Your task to perform on an android device: Open Amazon Image 0: 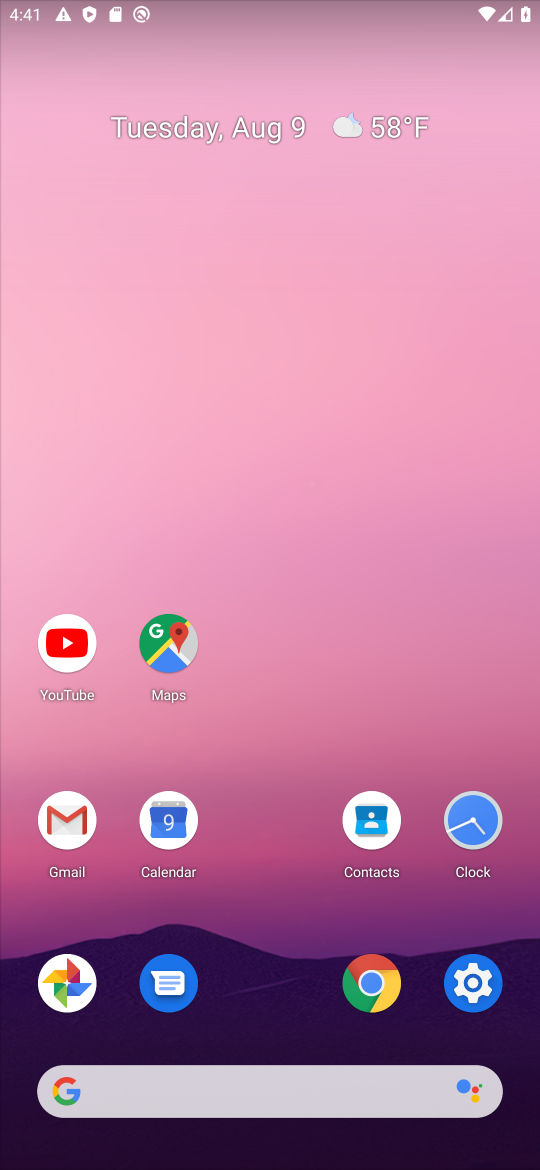
Step 0: press home button
Your task to perform on an android device: Open Amazon Image 1: 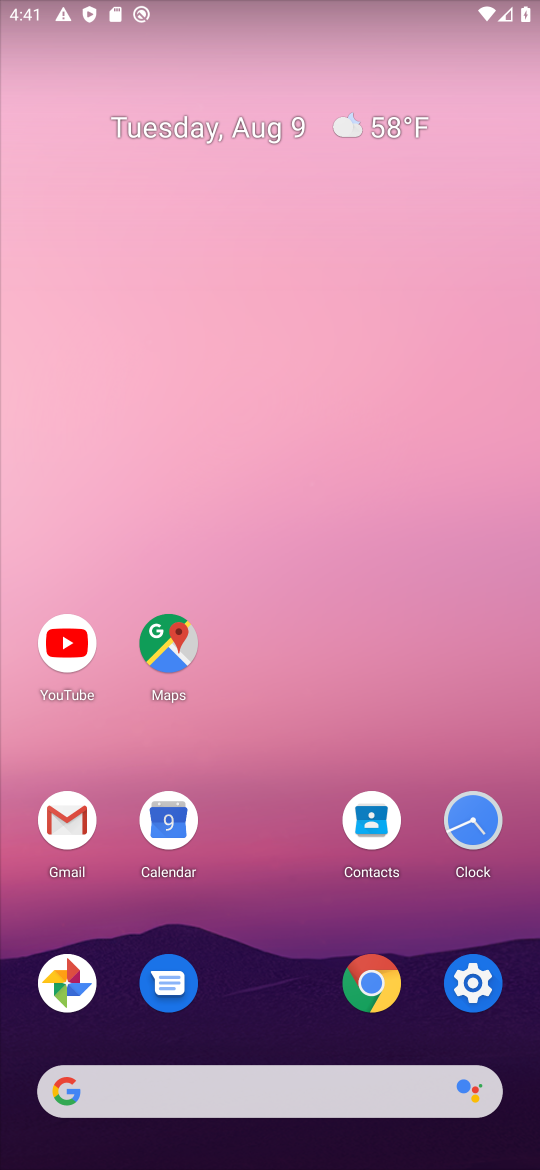
Step 1: click (373, 980)
Your task to perform on an android device: Open Amazon Image 2: 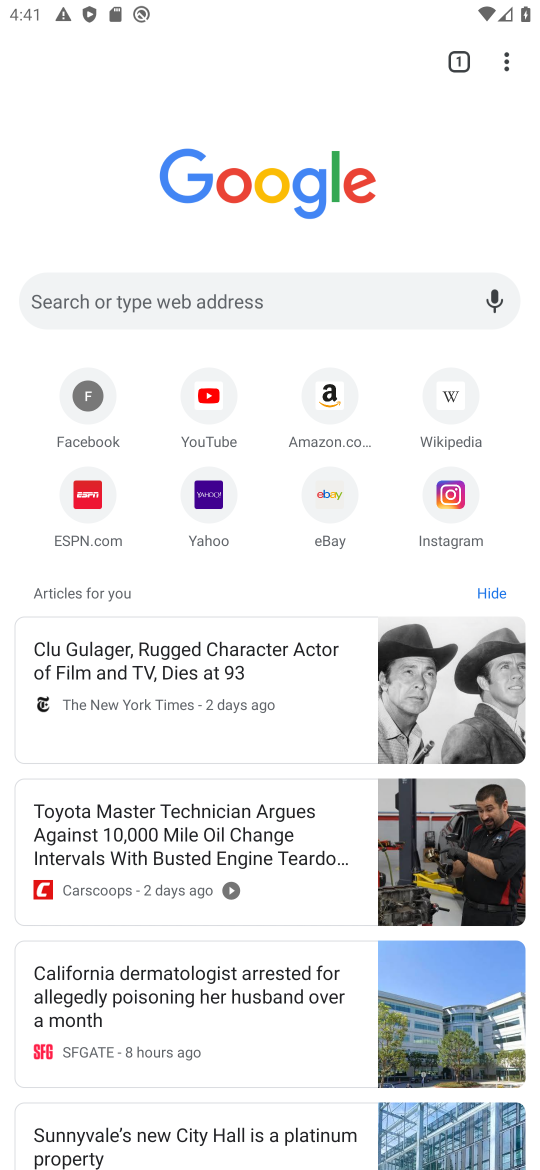
Step 2: click (337, 391)
Your task to perform on an android device: Open Amazon Image 3: 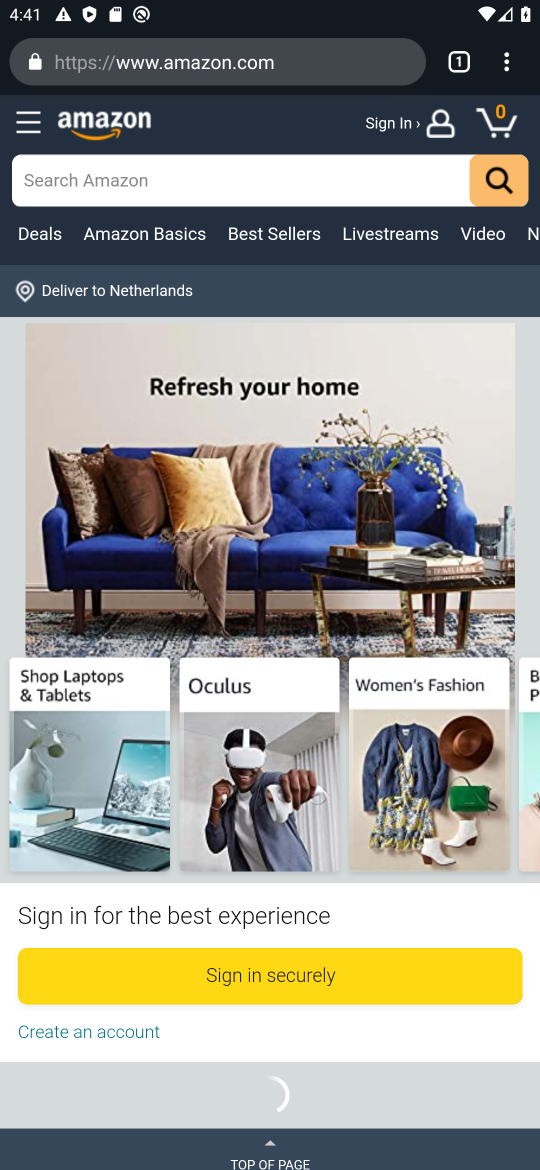
Step 3: task complete